Your task to perform on an android device: Open Yahoo.com Image 0: 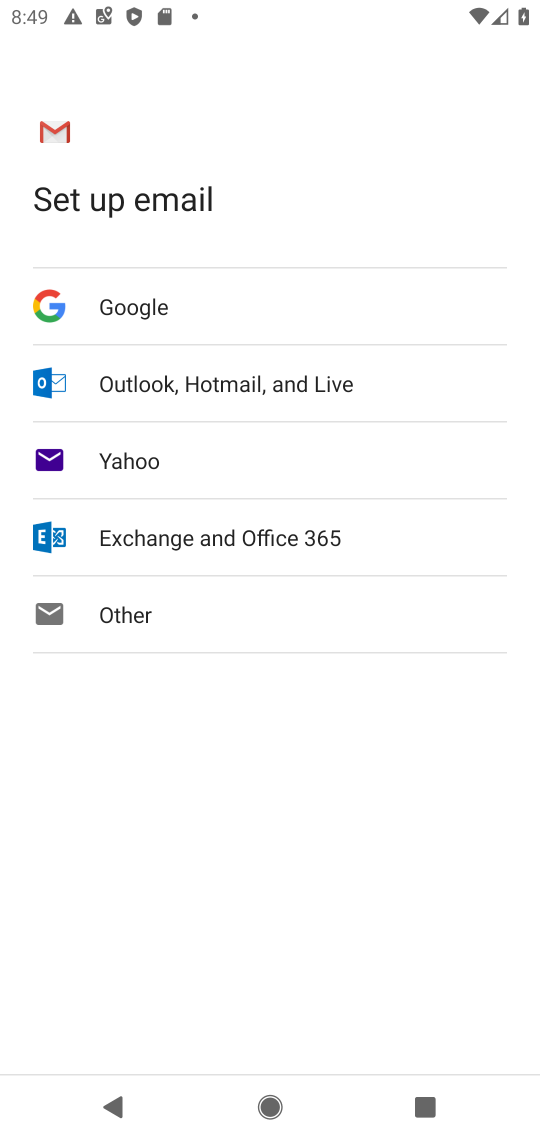
Step 0: press home button
Your task to perform on an android device: Open Yahoo.com Image 1: 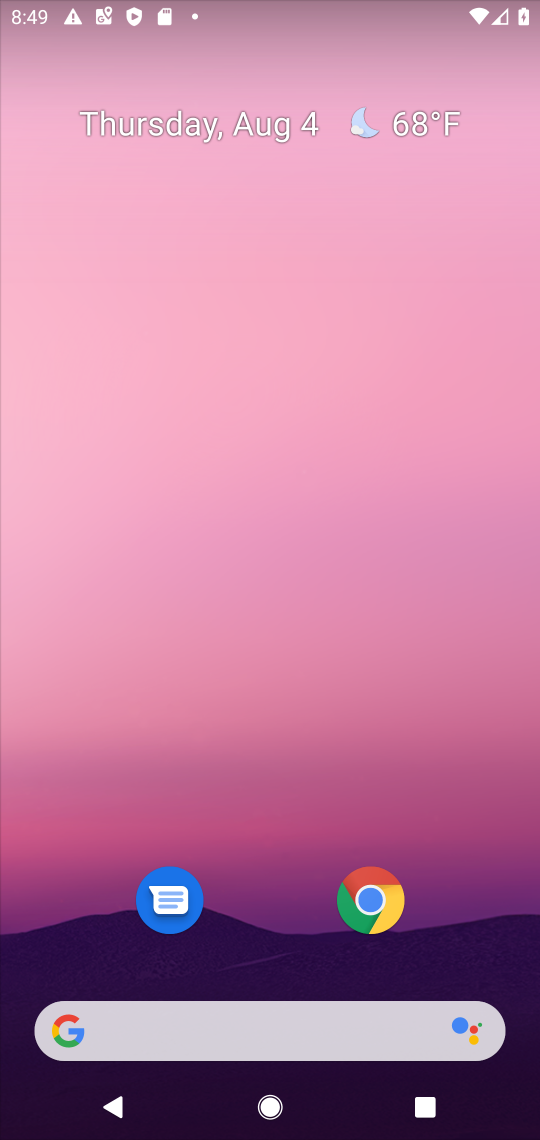
Step 1: click (375, 904)
Your task to perform on an android device: Open Yahoo.com Image 2: 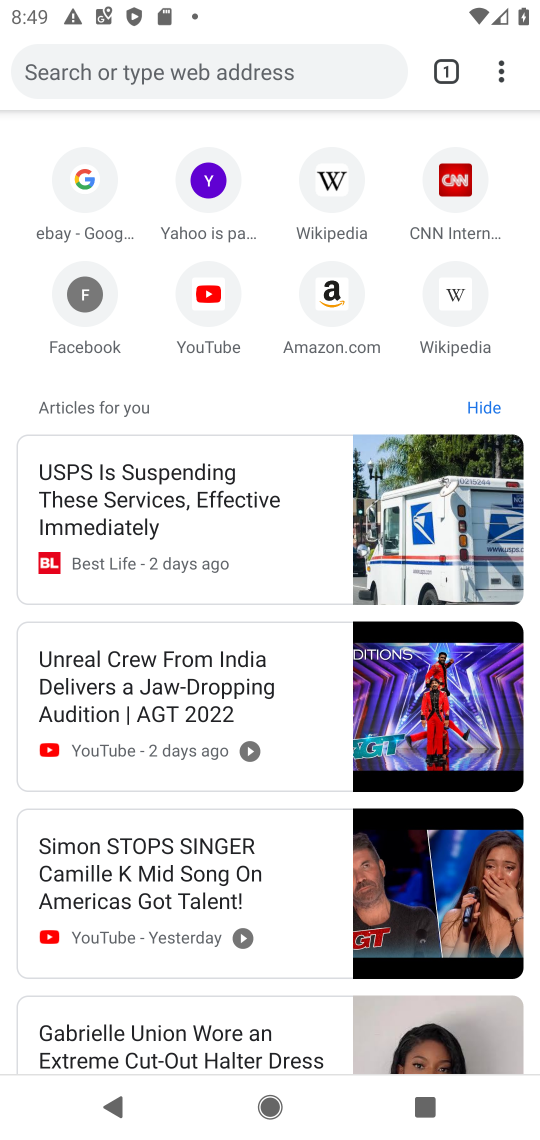
Step 2: click (195, 181)
Your task to perform on an android device: Open Yahoo.com Image 3: 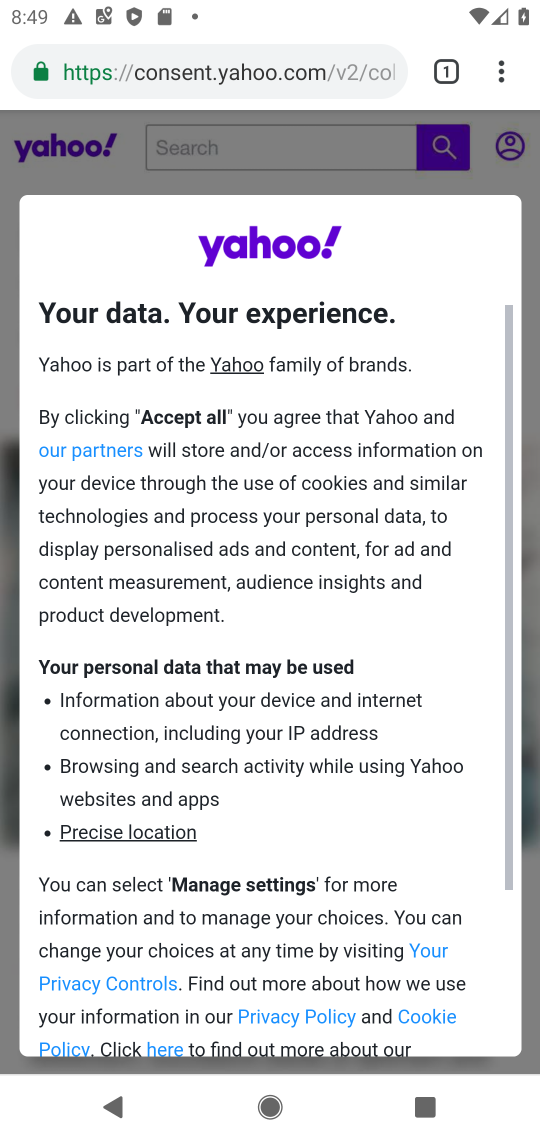
Step 3: task complete